Your task to perform on an android device: Search for seafood restaurants on Google Maps Image 0: 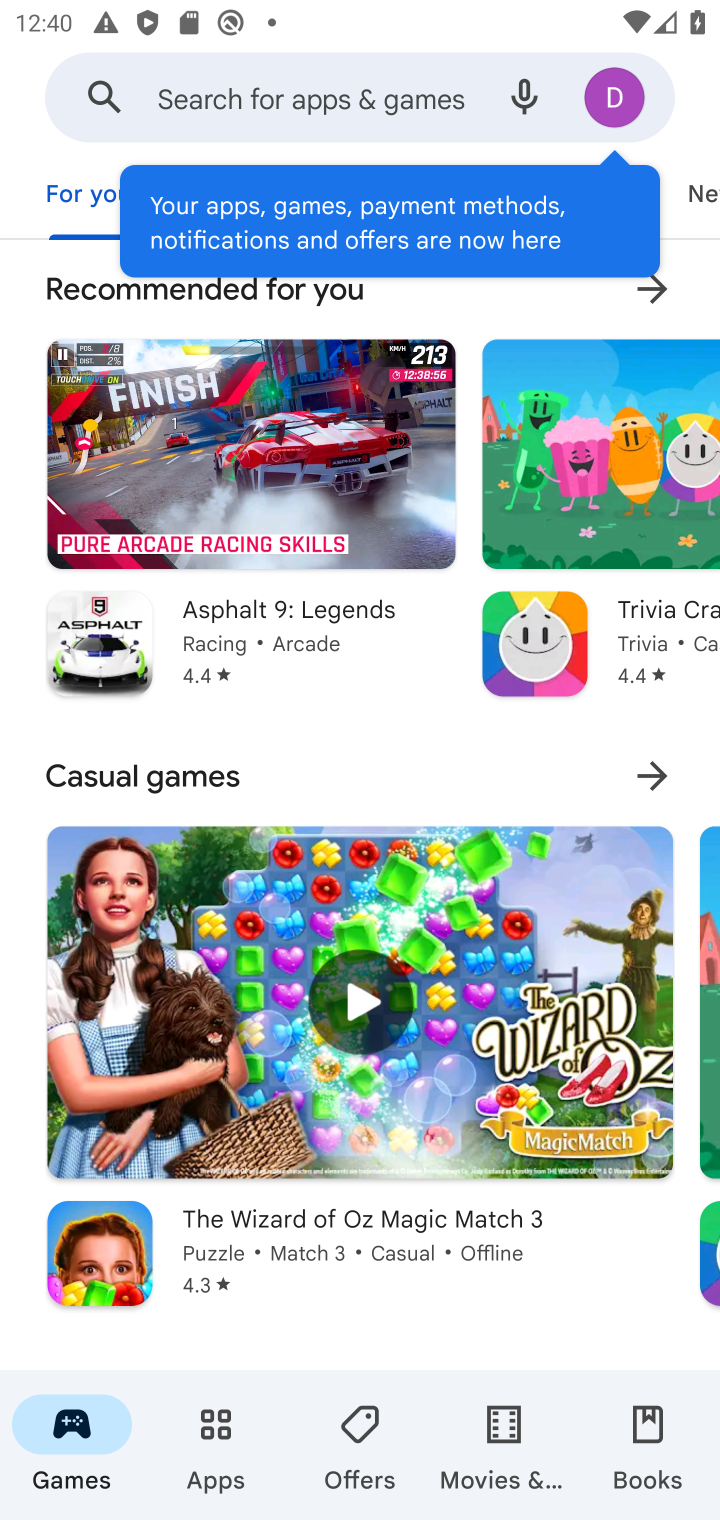
Step 0: press home button
Your task to perform on an android device: Search for seafood restaurants on Google Maps Image 1: 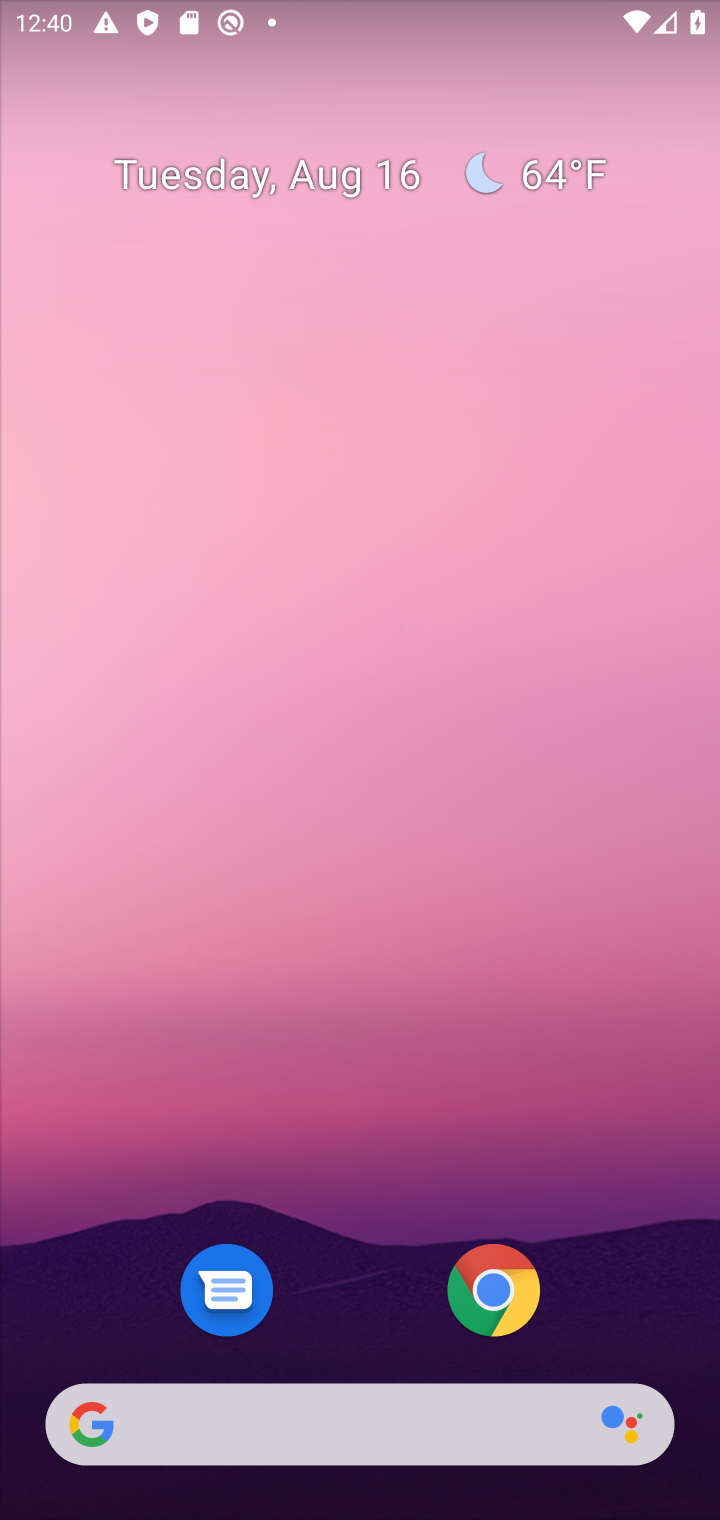
Step 1: drag from (75, 1037) to (453, 82)
Your task to perform on an android device: Search for seafood restaurants on Google Maps Image 2: 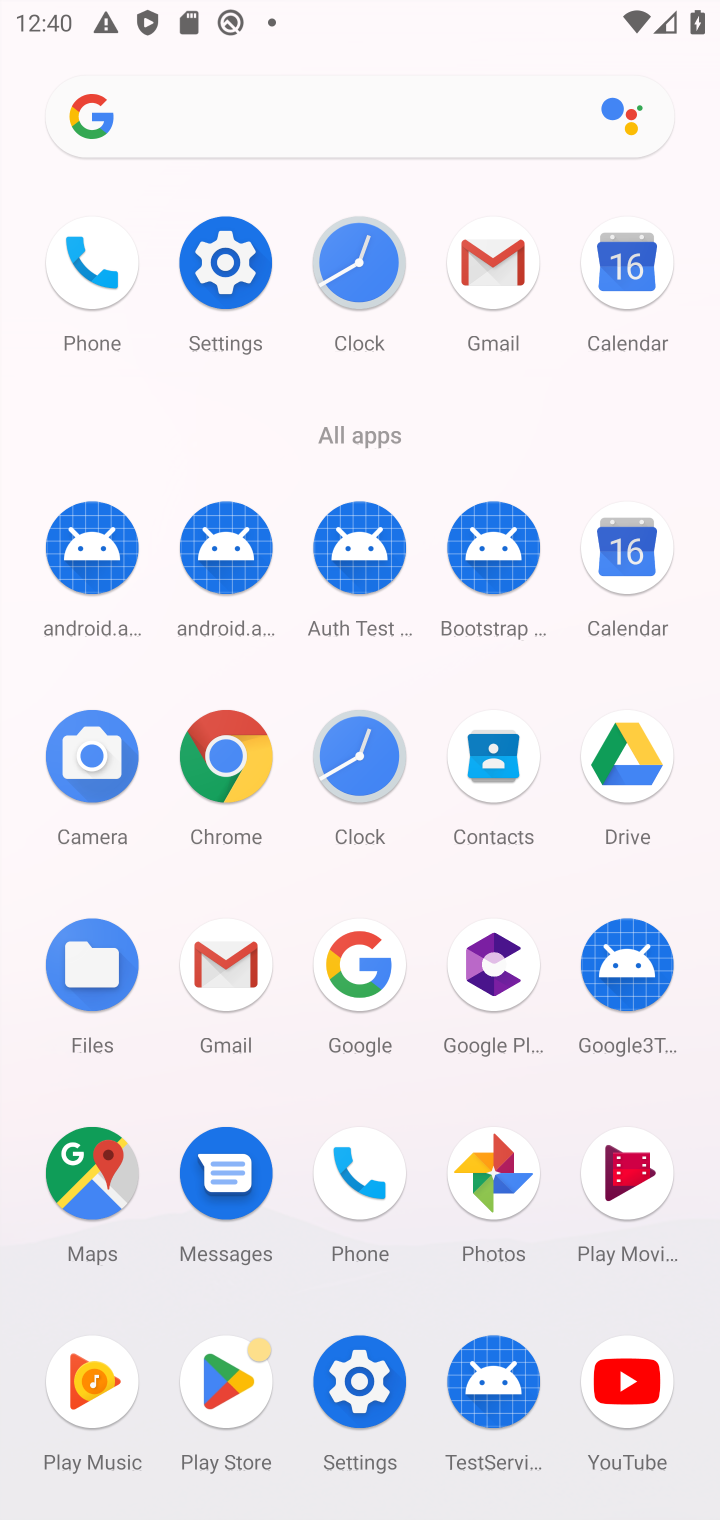
Step 2: click (61, 1150)
Your task to perform on an android device: Search for seafood restaurants on Google Maps Image 3: 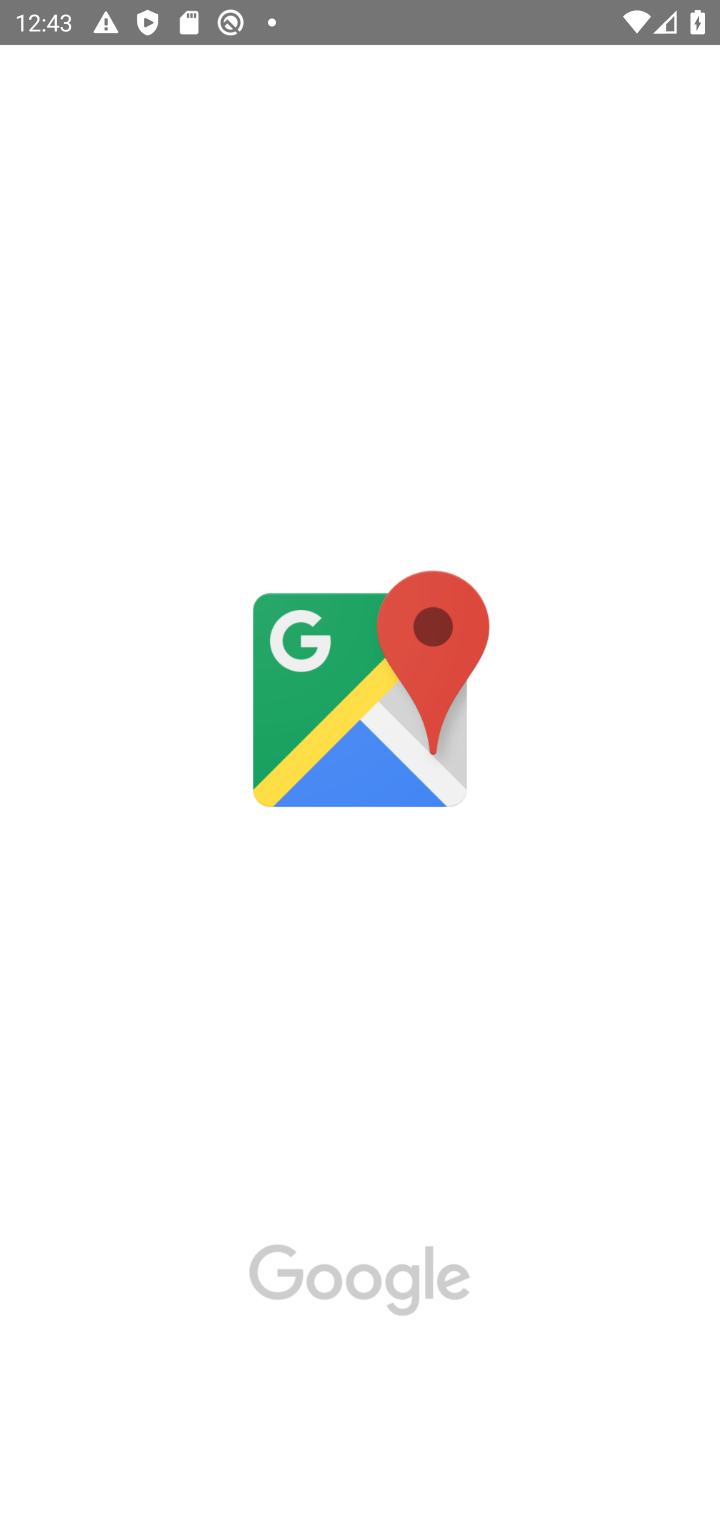
Step 3: task complete